Your task to perform on an android device: Go to network settings Image 0: 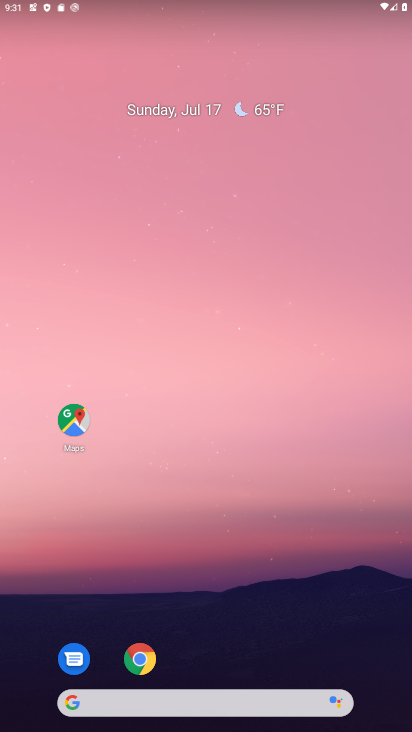
Step 0: drag from (172, 9) to (226, 585)
Your task to perform on an android device: Go to network settings Image 1: 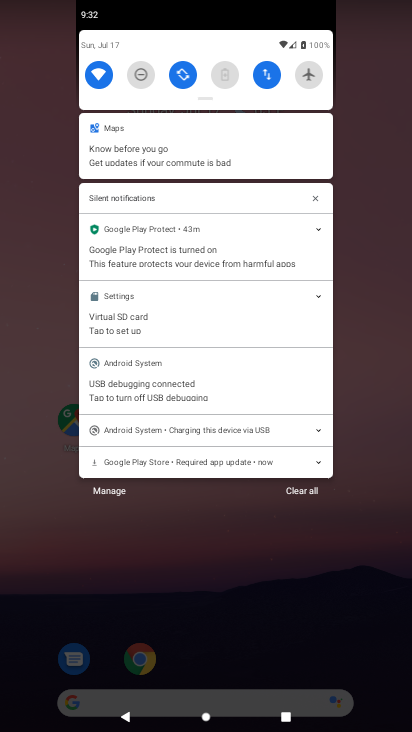
Step 1: click (264, 79)
Your task to perform on an android device: Go to network settings Image 2: 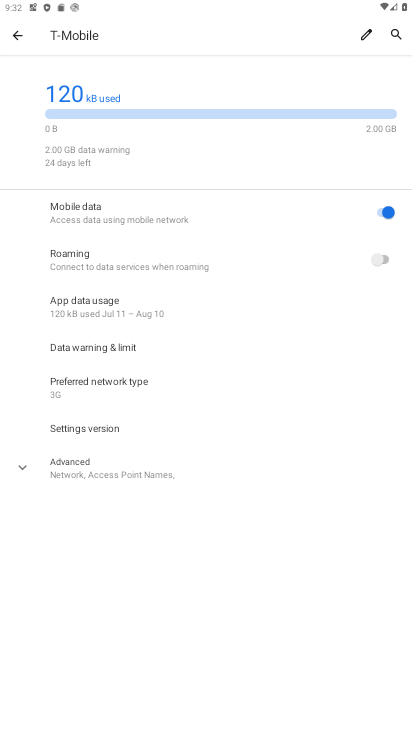
Step 2: task complete